Your task to perform on an android device: set default search engine in the chrome app Image 0: 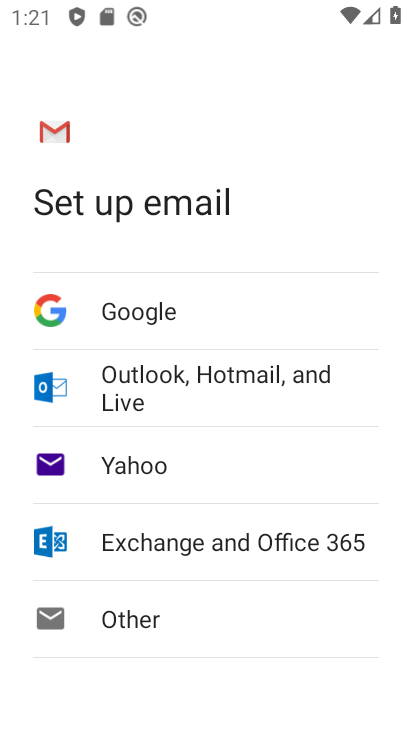
Step 0: press home button
Your task to perform on an android device: set default search engine in the chrome app Image 1: 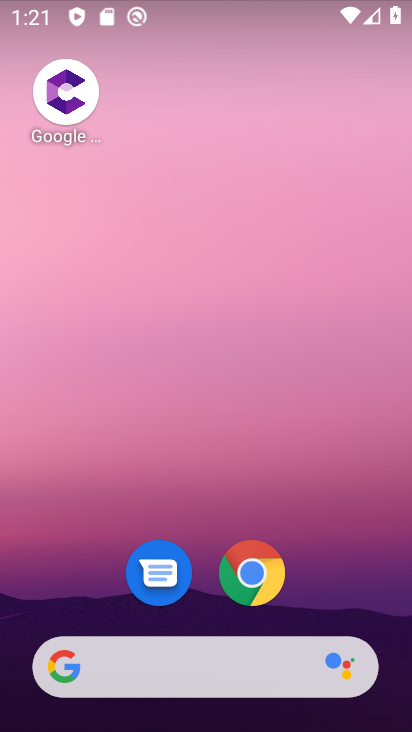
Step 1: click (254, 580)
Your task to perform on an android device: set default search engine in the chrome app Image 2: 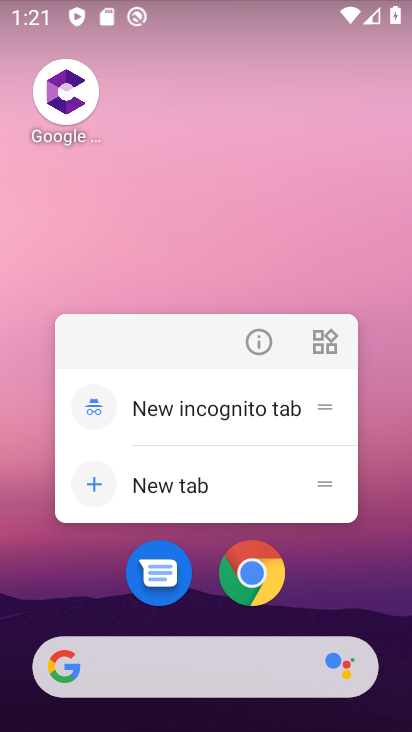
Step 2: click (256, 596)
Your task to perform on an android device: set default search engine in the chrome app Image 3: 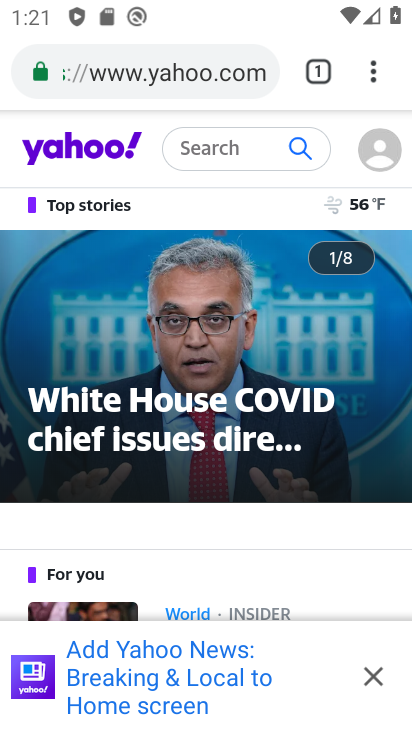
Step 3: click (379, 72)
Your task to perform on an android device: set default search engine in the chrome app Image 4: 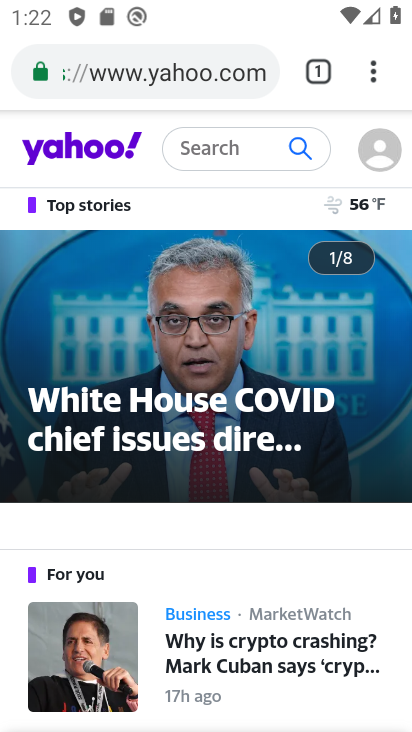
Step 4: click (375, 73)
Your task to perform on an android device: set default search engine in the chrome app Image 5: 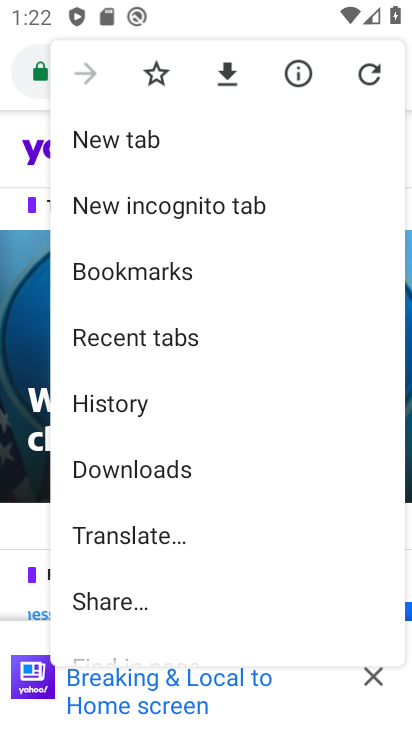
Step 5: drag from (149, 575) to (149, 166)
Your task to perform on an android device: set default search engine in the chrome app Image 6: 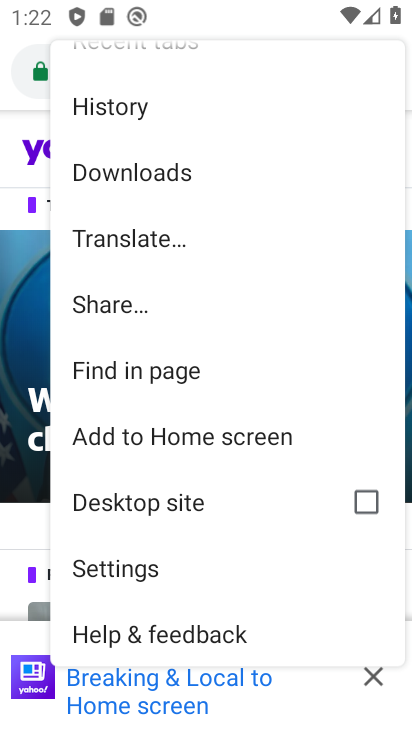
Step 6: click (136, 573)
Your task to perform on an android device: set default search engine in the chrome app Image 7: 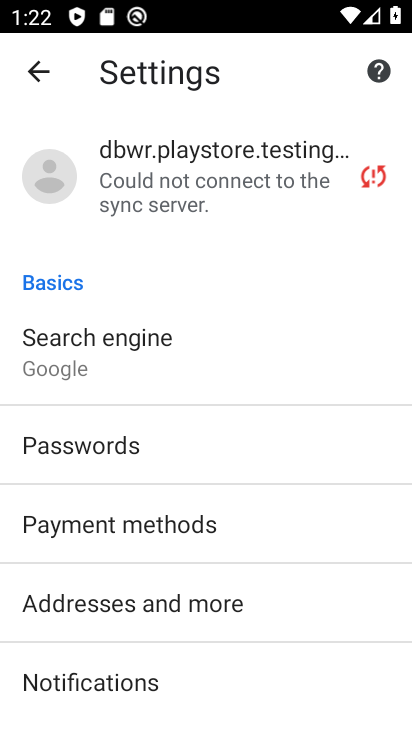
Step 7: click (100, 373)
Your task to perform on an android device: set default search engine in the chrome app Image 8: 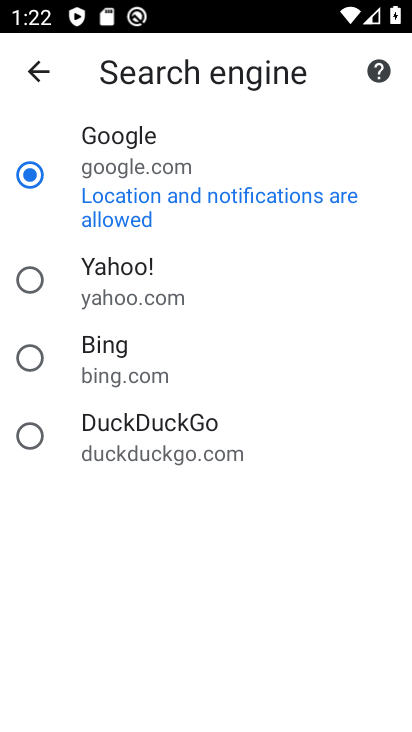
Step 8: click (32, 285)
Your task to perform on an android device: set default search engine in the chrome app Image 9: 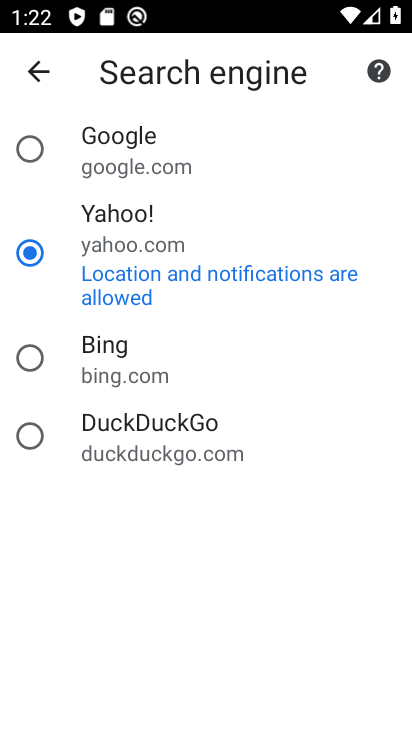
Step 9: task complete